Your task to perform on an android device: turn off priority inbox in the gmail app Image 0: 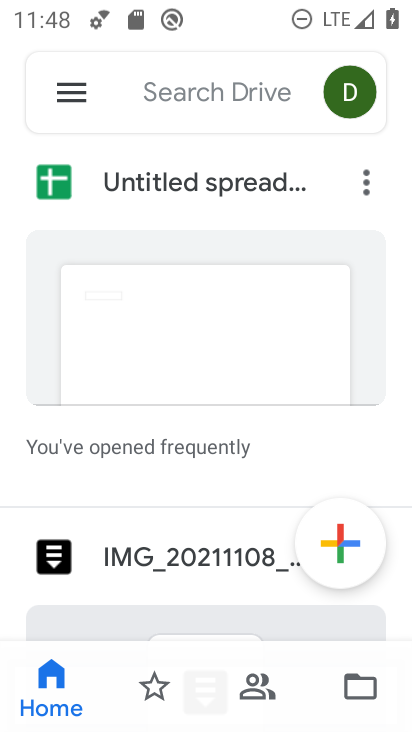
Step 0: press home button
Your task to perform on an android device: turn off priority inbox in the gmail app Image 1: 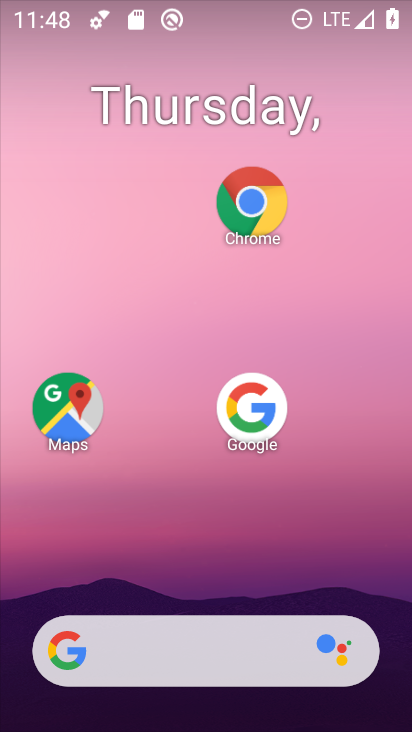
Step 1: drag from (232, 594) to (137, 58)
Your task to perform on an android device: turn off priority inbox in the gmail app Image 2: 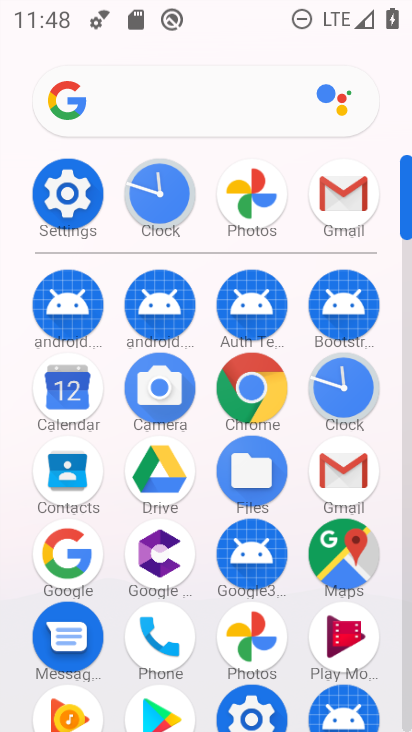
Step 2: click (352, 495)
Your task to perform on an android device: turn off priority inbox in the gmail app Image 3: 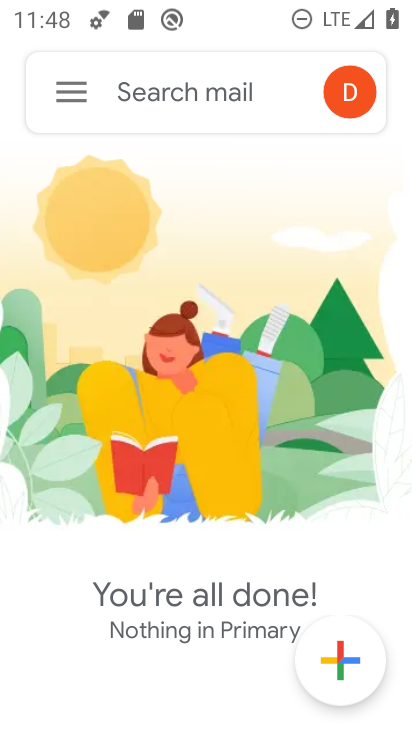
Step 3: click (87, 102)
Your task to perform on an android device: turn off priority inbox in the gmail app Image 4: 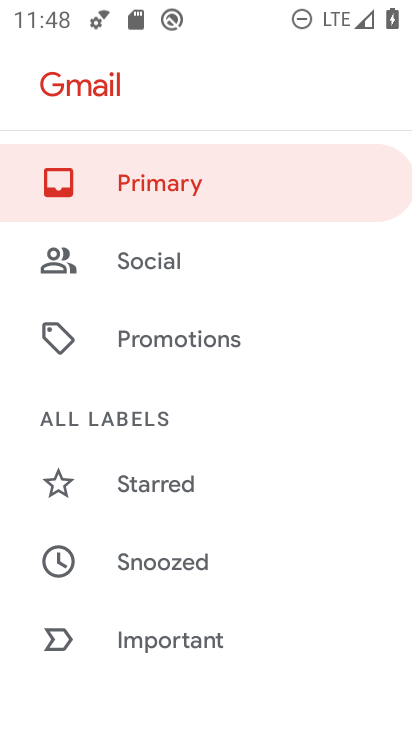
Step 4: drag from (287, 616) to (194, 8)
Your task to perform on an android device: turn off priority inbox in the gmail app Image 5: 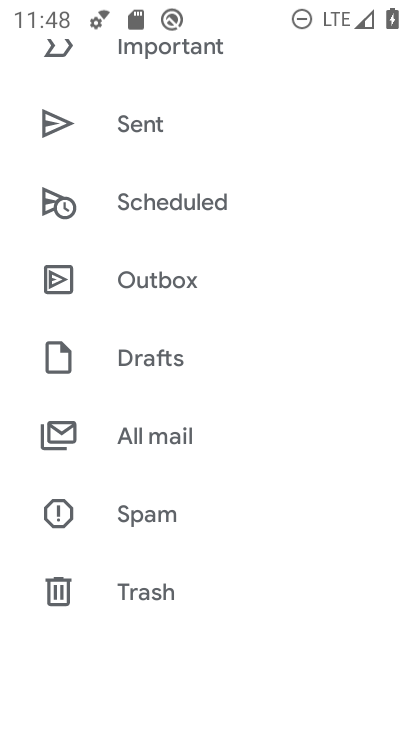
Step 5: drag from (232, 550) to (184, 7)
Your task to perform on an android device: turn off priority inbox in the gmail app Image 6: 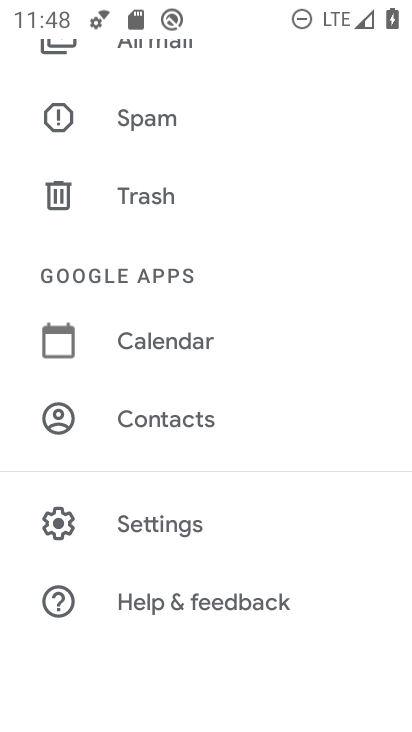
Step 6: click (163, 503)
Your task to perform on an android device: turn off priority inbox in the gmail app Image 7: 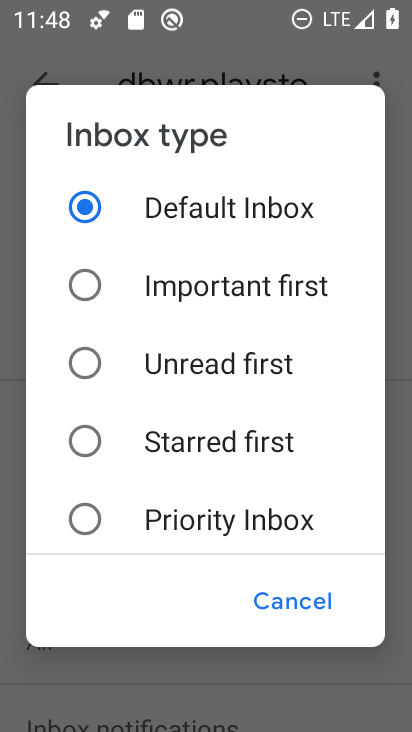
Step 7: task complete